Your task to perform on an android device: open wifi settings Image 0: 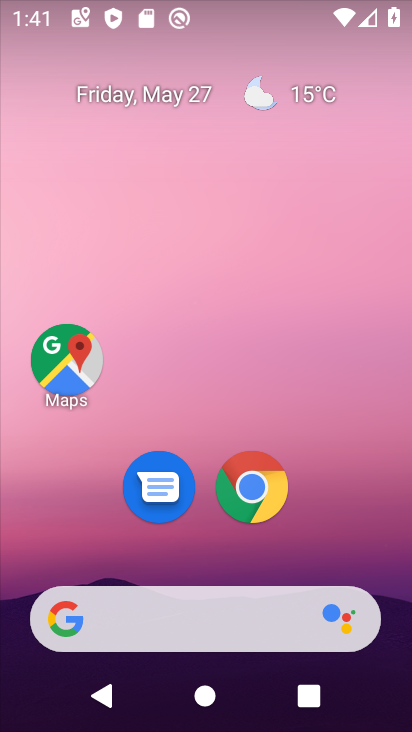
Step 0: drag from (333, 457) to (285, 100)
Your task to perform on an android device: open wifi settings Image 1: 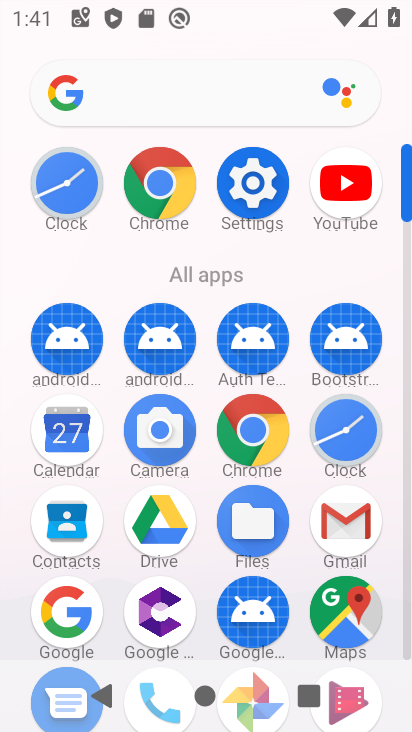
Step 1: click (251, 182)
Your task to perform on an android device: open wifi settings Image 2: 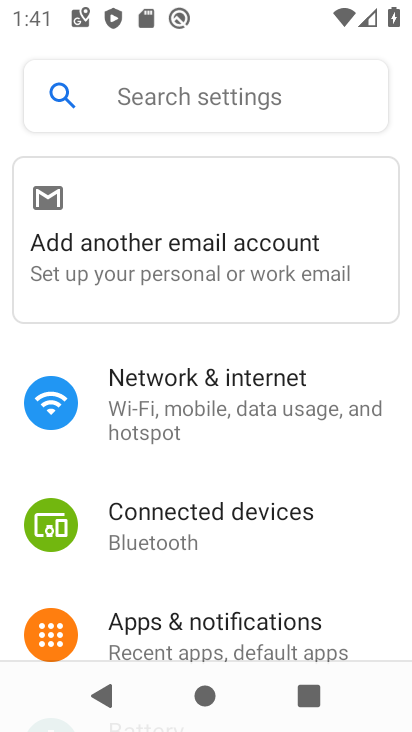
Step 2: click (220, 395)
Your task to perform on an android device: open wifi settings Image 3: 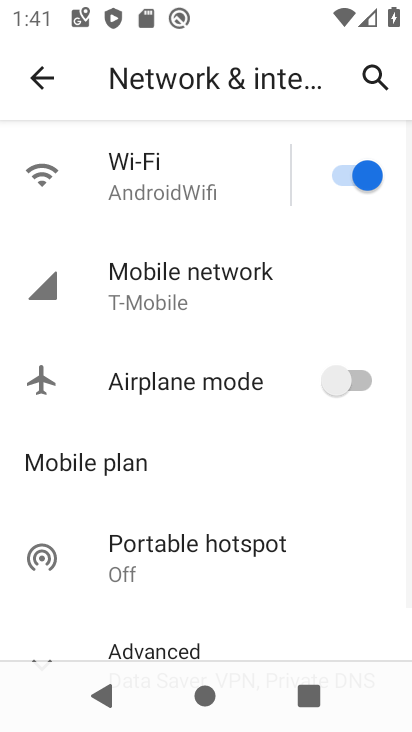
Step 3: click (231, 194)
Your task to perform on an android device: open wifi settings Image 4: 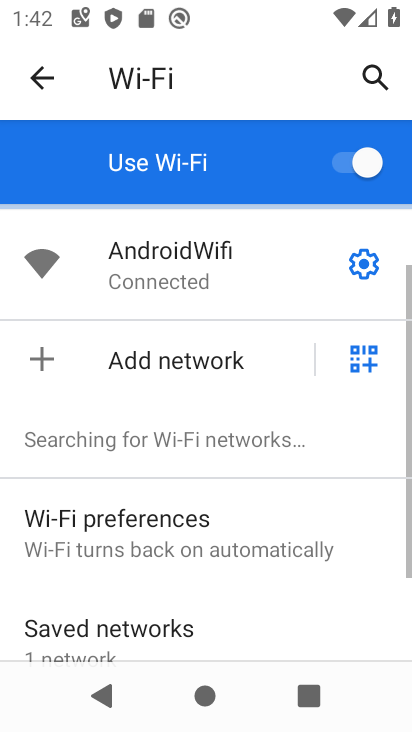
Step 4: click (365, 278)
Your task to perform on an android device: open wifi settings Image 5: 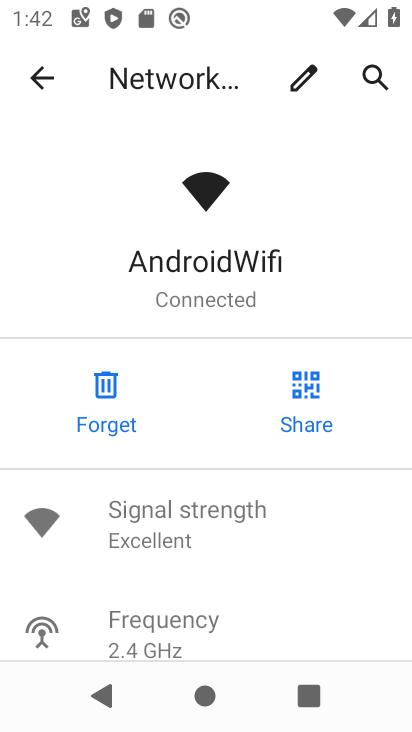
Step 5: task complete